Your task to perform on an android device: Open the calendar and show me this week's events? Image 0: 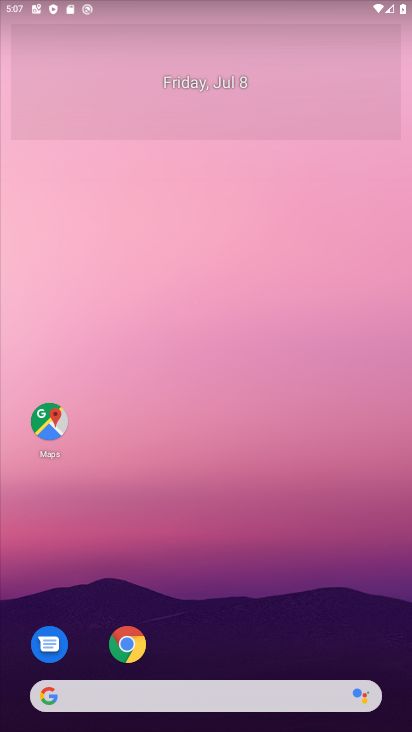
Step 0: drag from (277, 297) to (286, 147)
Your task to perform on an android device: Open the calendar and show me this week's events? Image 1: 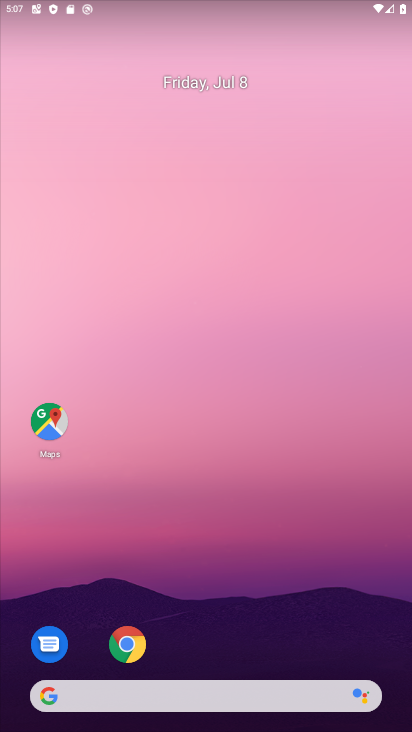
Step 1: drag from (250, 448) to (256, 16)
Your task to perform on an android device: Open the calendar and show me this week's events? Image 2: 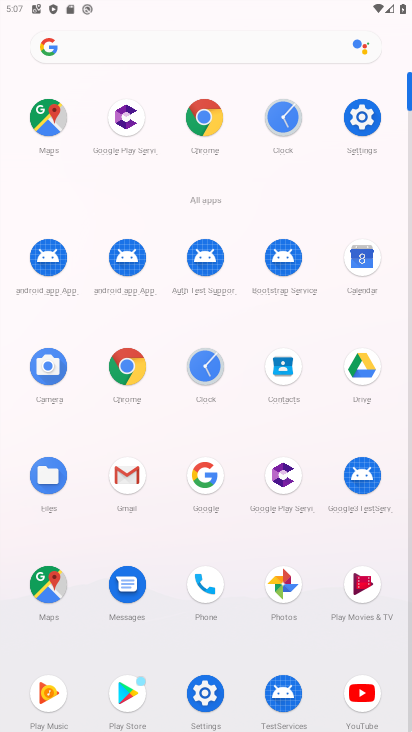
Step 2: click (361, 257)
Your task to perform on an android device: Open the calendar and show me this week's events? Image 3: 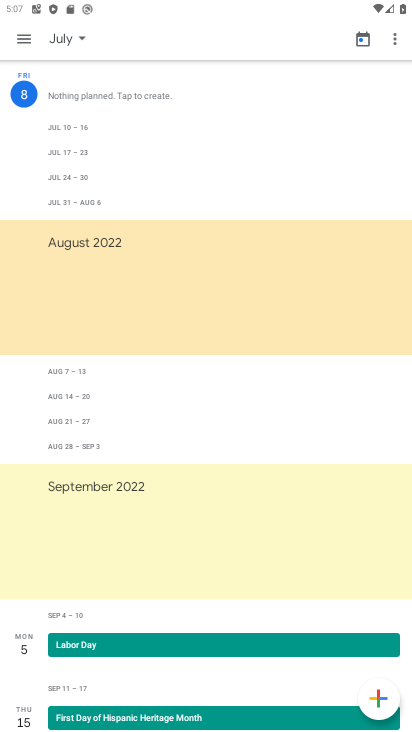
Step 3: click (27, 45)
Your task to perform on an android device: Open the calendar and show me this week's events? Image 4: 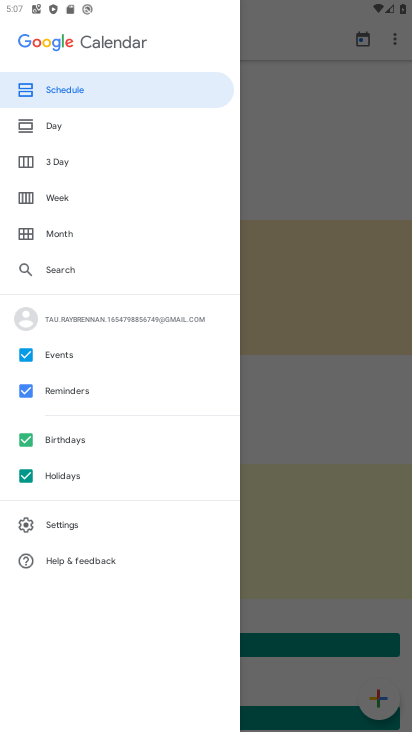
Step 4: click (61, 195)
Your task to perform on an android device: Open the calendar and show me this week's events? Image 5: 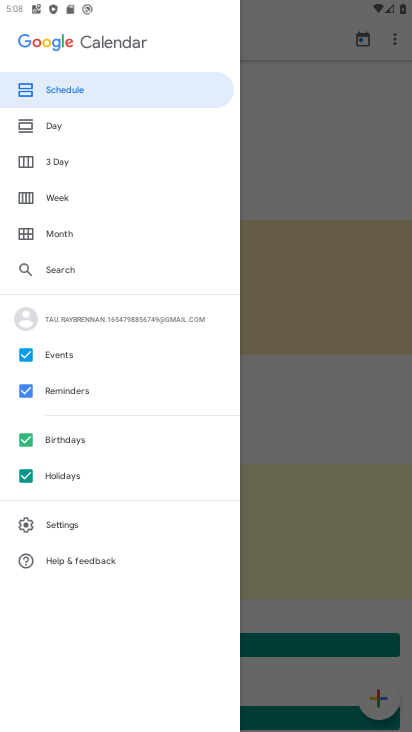
Step 5: click (61, 195)
Your task to perform on an android device: Open the calendar and show me this week's events? Image 6: 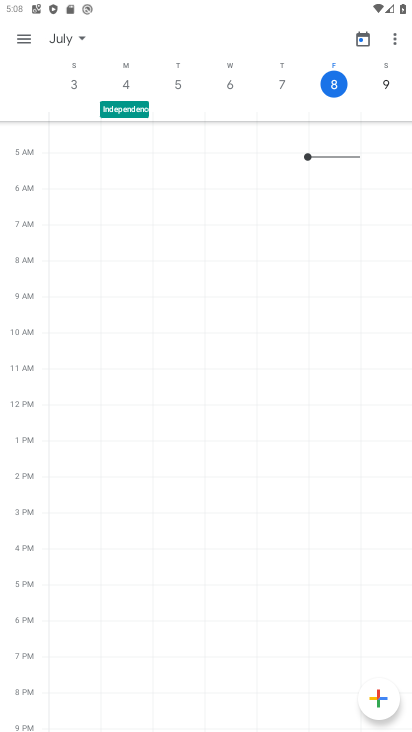
Step 6: click (134, 83)
Your task to perform on an android device: Open the calendar and show me this week's events? Image 7: 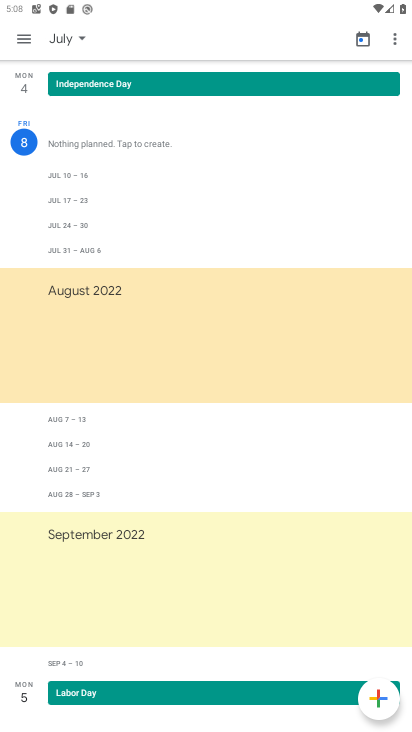
Step 7: task complete